Your task to perform on an android device: Open calendar and show me the first week of next month Image 0: 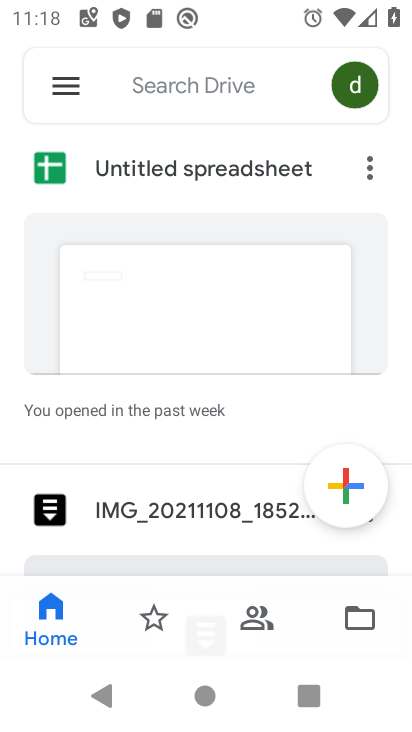
Step 0: press home button
Your task to perform on an android device: Open calendar and show me the first week of next month Image 1: 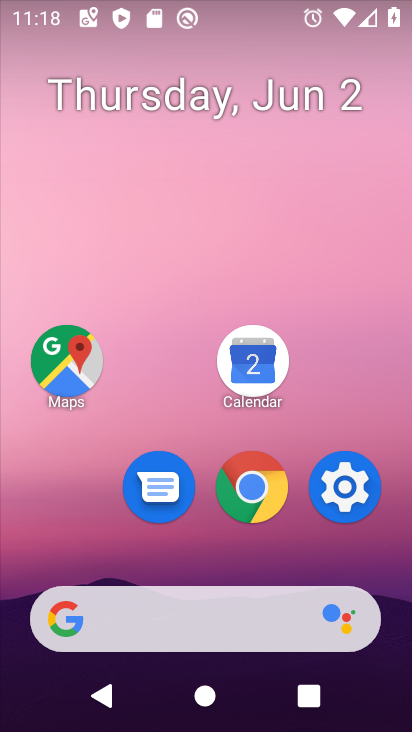
Step 1: drag from (244, 654) to (265, 86)
Your task to perform on an android device: Open calendar and show me the first week of next month Image 2: 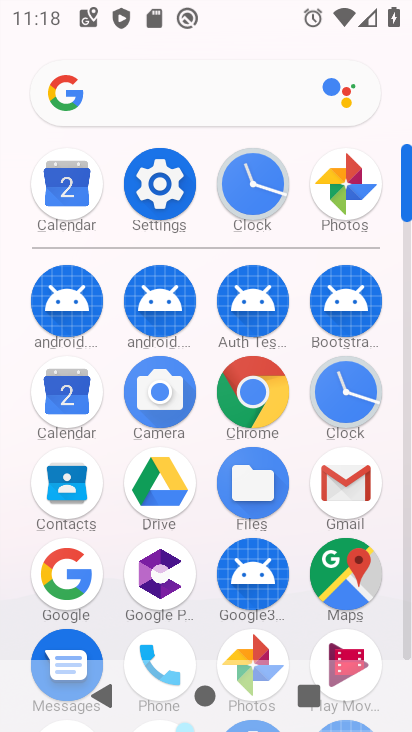
Step 2: click (80, 195)
Your task to perform on an android device: Open calendar and show me the first week of next month Image 3: 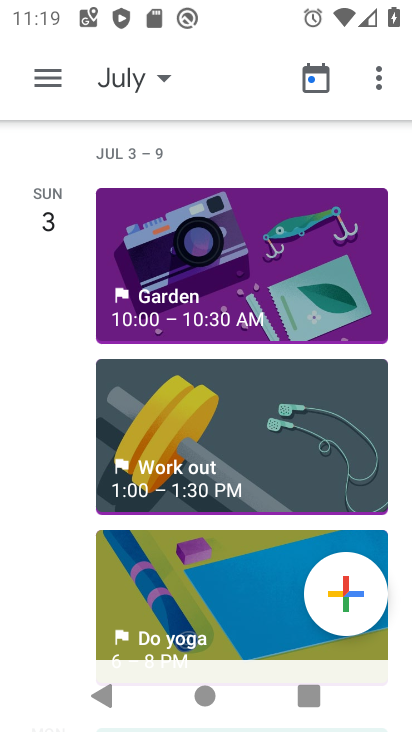
Step 3: click (38, 74)
Your task to perform on an android device: Open calendar and show me the first week of next month Image 4: 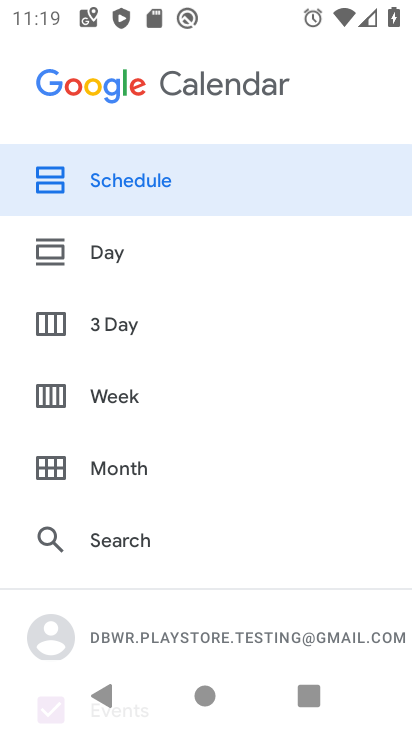
Step 4: click (128, 463)
Your task to perform on an android device: Open calendar and show me the first week of next month Image 5: 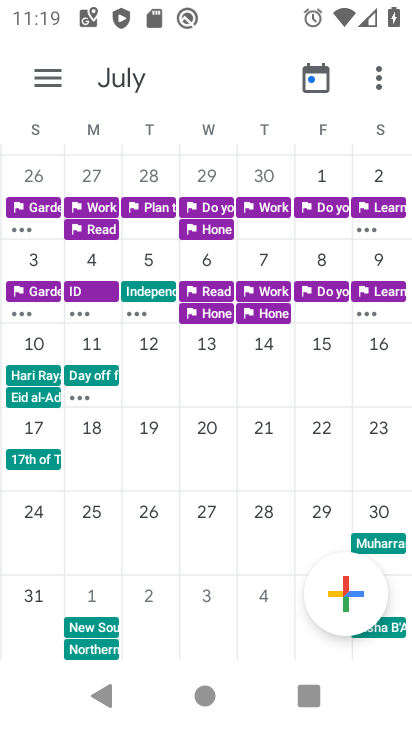
Step 5: click (89, 267)
Your task to perform on an android device: Open calendar and show me the first week of next month Image 6: 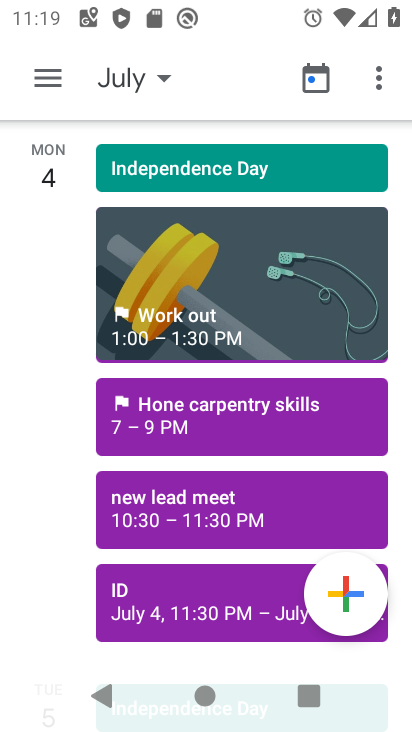
Step 6: task complete